Your task to perform on an android device: toggle notifications settings in the gmail app Image 0: 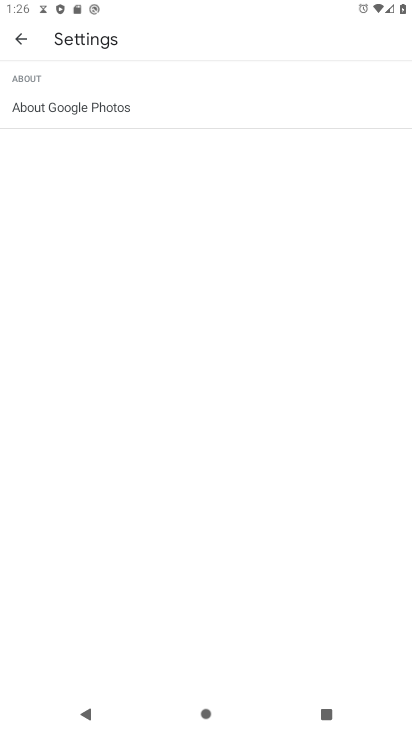
Step 0: press home button
Your task to perform on an android device: toggle notifications settings in the gmail app Image 1: 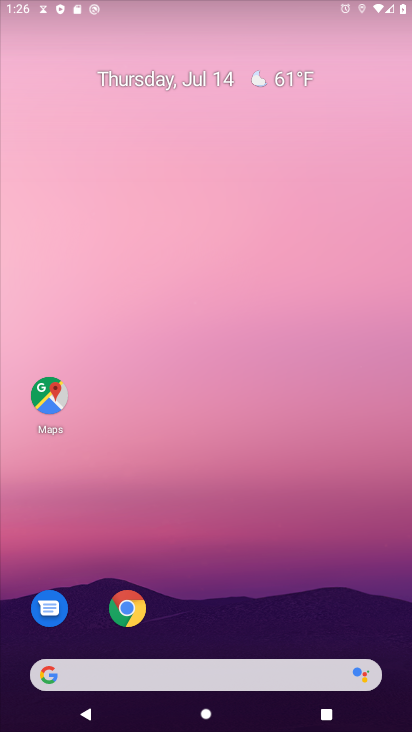
Step 1: drag from (233, 658) to (180, 226)
Your task to perform on an android device: toggle notifications settings in the gmail app Image 2: 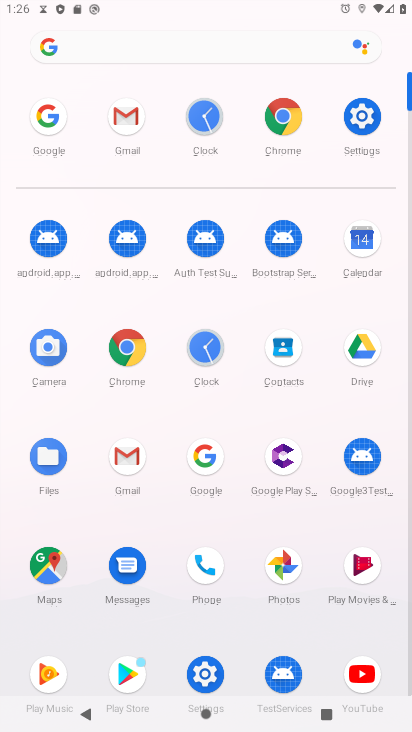
Step 2: click (138, 457)
Your task to perform on an android device: toggle notifications settings in the gmail app Image 3: 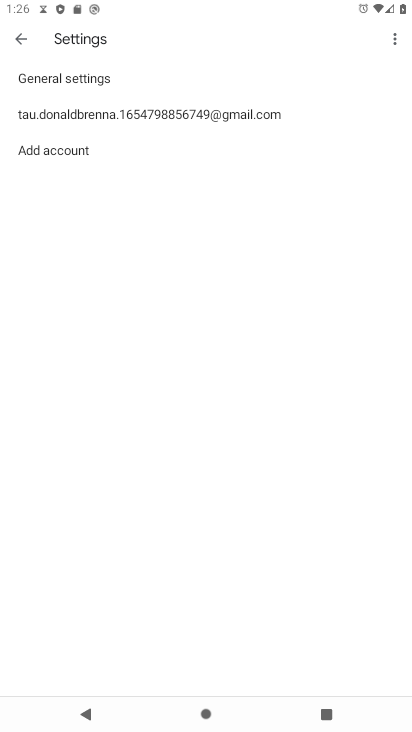
Step 3: click (85, 108)
Your task to perform on an android device: toggle notifications settings in the gmail app Image 4: 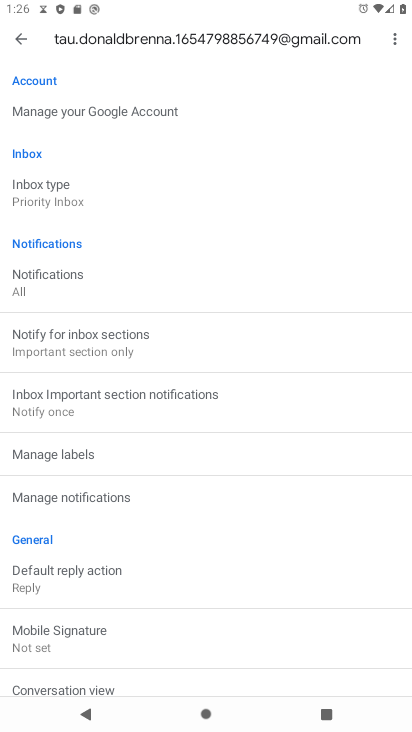
Step 4: click (117, 494)
Your task to perform on an android device: toggle notifications settings in the gmail app Image 5: 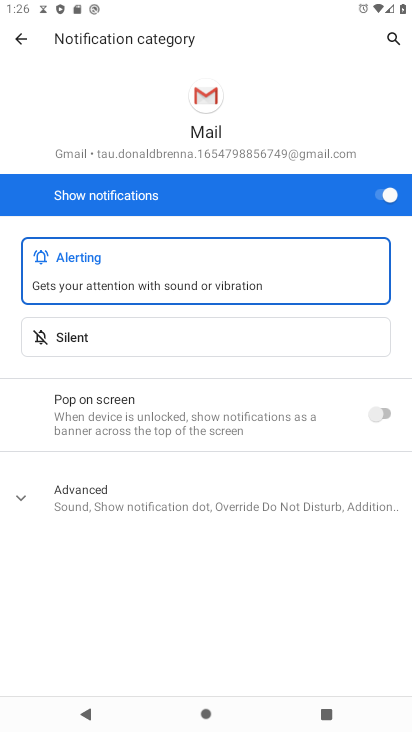
Step 5: click (379, 193)
Your task to perform on an android device: toggle notifications settings in the gmail app Image 6: 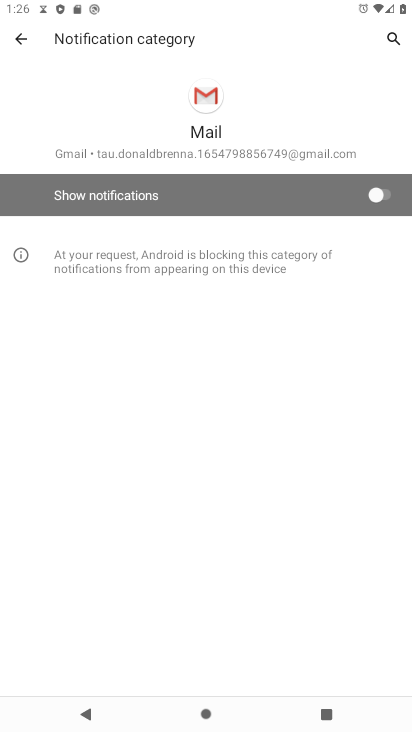
Step 6: task complete